Your task to perform on an android device: allow notifications from all sites in the chrome app Image 0: 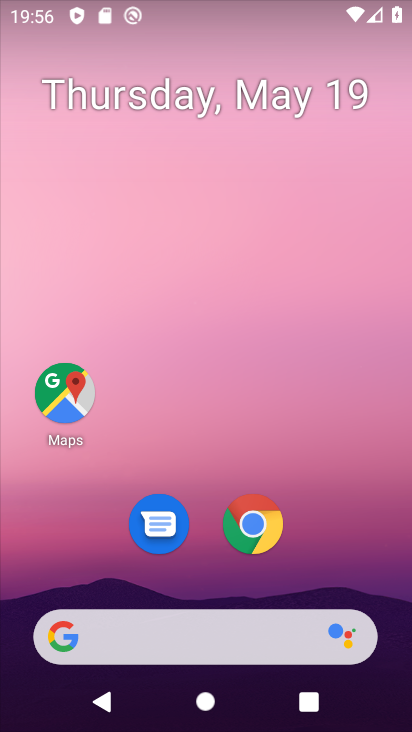
Step 0: click (265, 526)
Your task to perform on an android device: allow notifications from all sites in the chrome app Image 1: 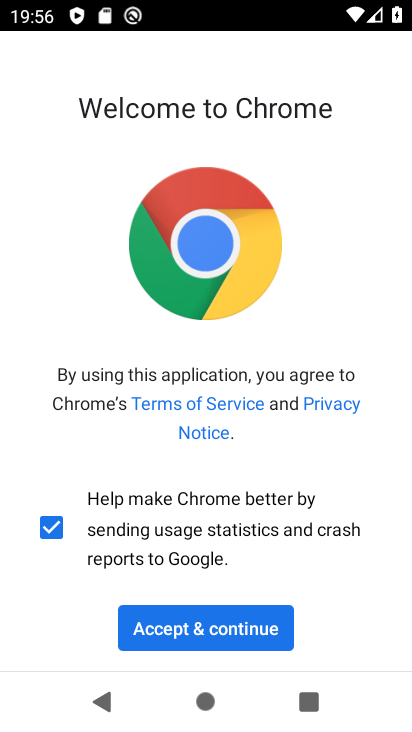
Step 1: click (241, 639)
Your task to perform on an android device: allow notifications from all sites in the chrome app Image 2: 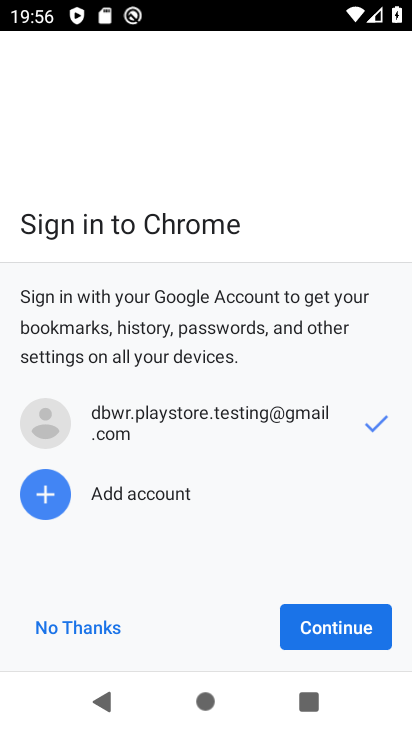
Step 2: click (302, 620)
Your task to perform on an android device: allow notifications from all sites in the chrome app Image 3: 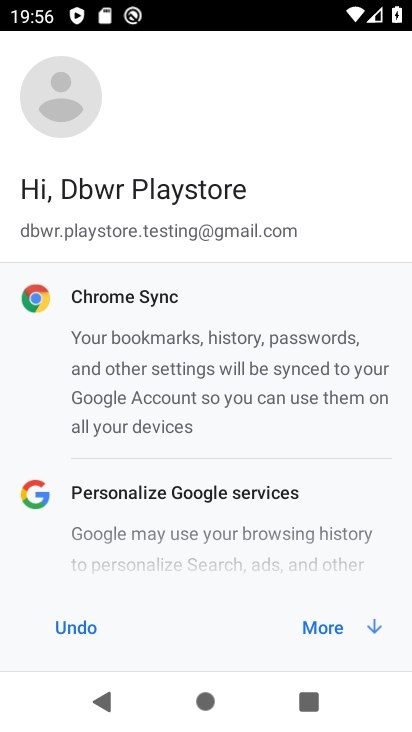
Step 3: click (311, 620)
Your task to perform on an android device: allow notifications from all sites in the chrome app Image 4: 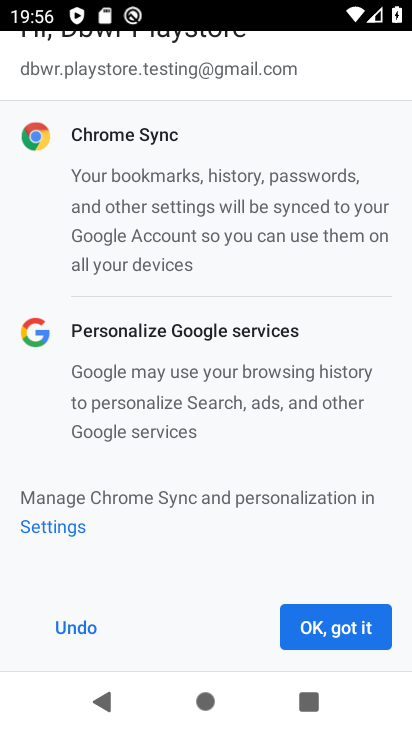
Step 4: click (311, 620)
Your task to perform on an android device: allow notifications from all sites in the chrome app Image 5: 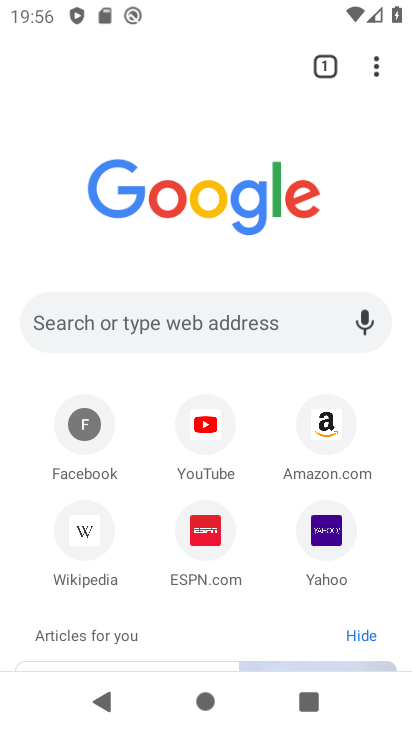
Step 5: click (371, 62)
Your task to perform on an android device: allow notifications from all sites in the chrome app Image 6: 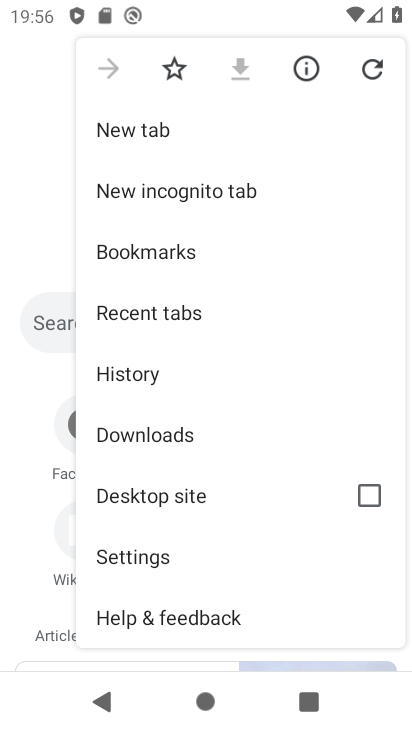
Step 6: click (184, 554)
Your task to perform on an android device: allow notifications from all sites in the chrome app Image 7: 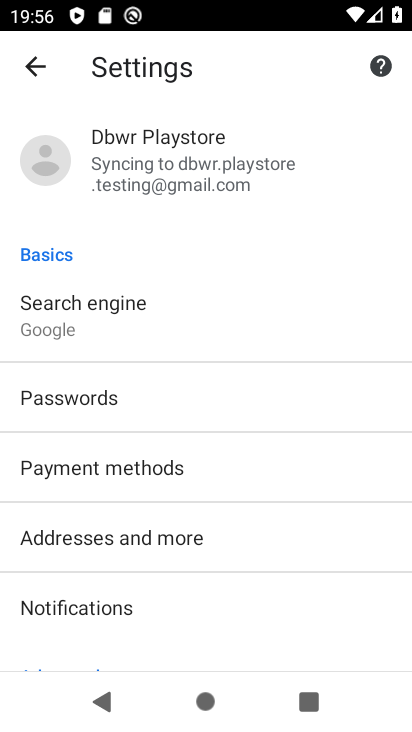
Step 7: click (201, 598)
Your task to perform on an android device: allow notifications from all sites in the chrome app Image 8: 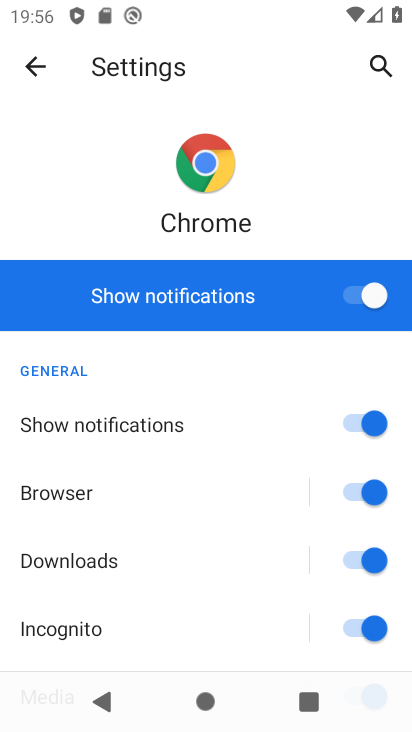
Step 8: task complete